Your task to perform on an android device: Search for pizza restaurants on Maps Image 0: 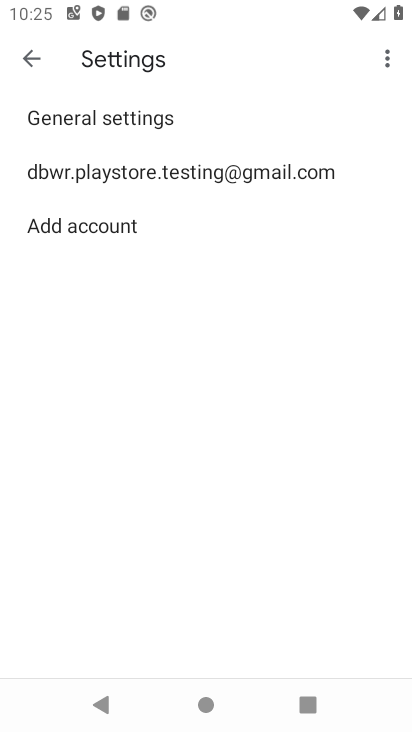
Step 0: press home button
Your task to perform on an android device: Search for pizza restaurants on Maps Image 1: 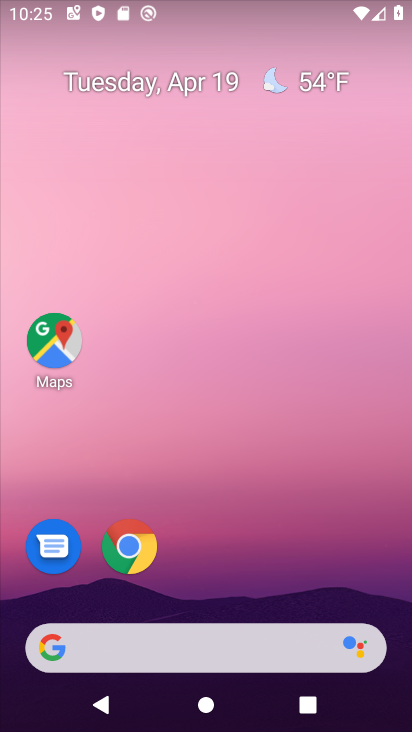
Step 1: click (35, 324)
Your task to perform on an android device: Search for pizza restaurants on Maps Image 2: 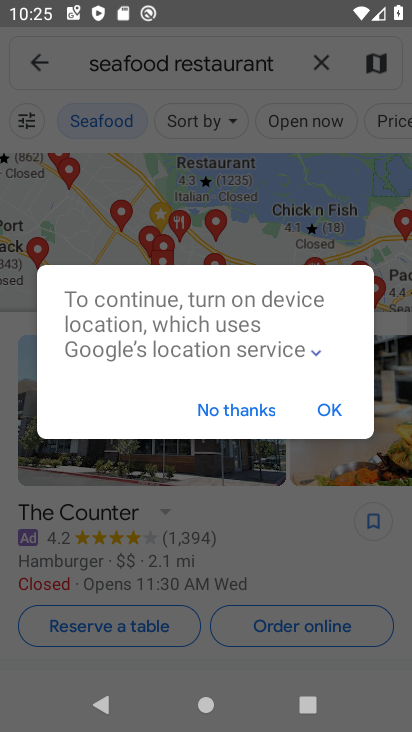
Step 2: click (314, 50)
Your task to perform on an android device: Search for pizza restaurants on Maps Image 3: 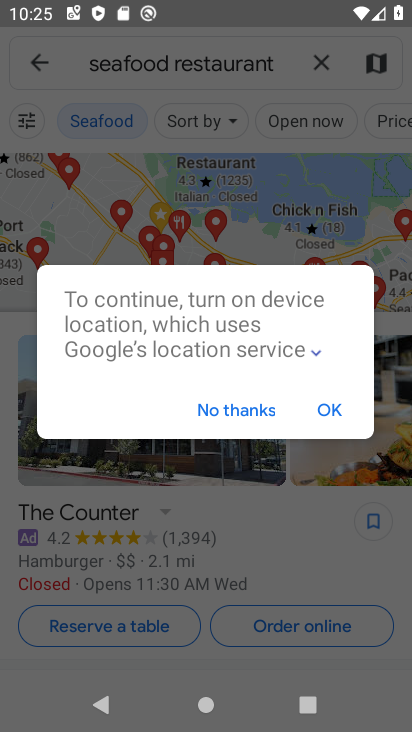
Step 3: click (252, 403)
Your task to perform on an android device: Search for pizza restaurants on Maps Image 4: 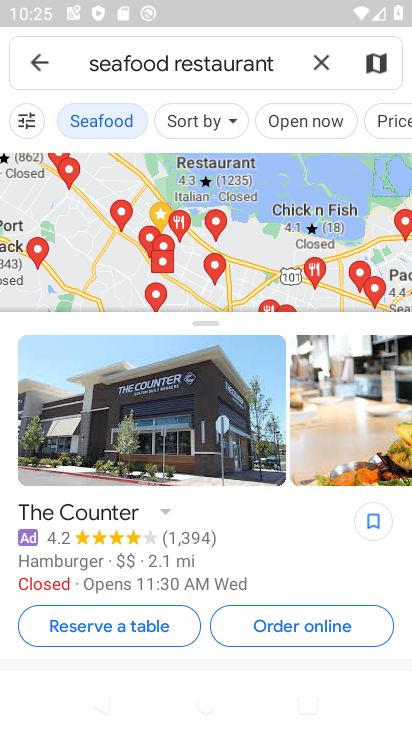
Step 4: click (325, 59)
Your task to perform on an android device: Search for pizza restaurants on Maps Image 5: 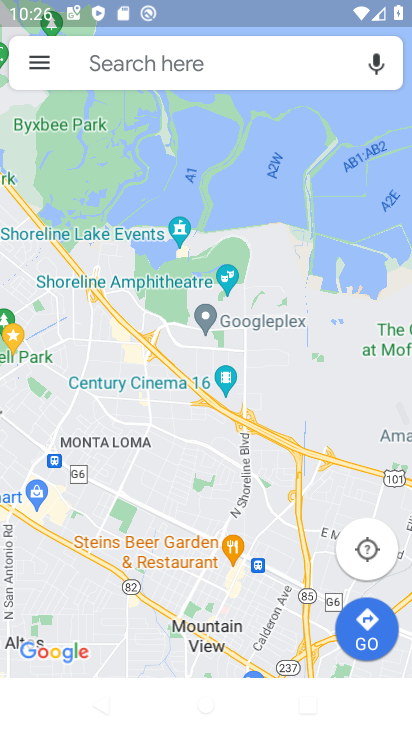
Step 5: click (257, 58)
Your task to perform on an android device: Search for pizza restaurants on Maps Image 6: 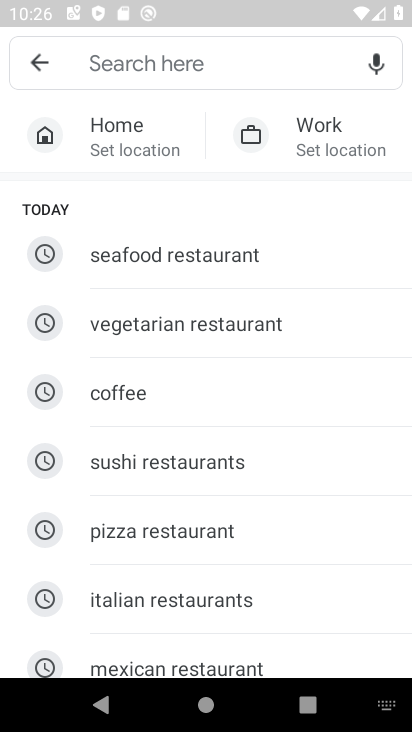
Step 6: click (244, 543)
Your task to perform on an android device: Search for pizza restaurants on Maps Image 7: 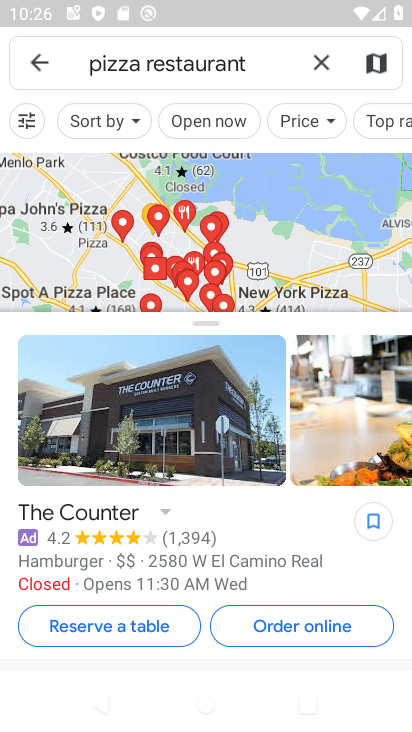
Step 7: task complete